Your task to perform on an android device: check out phone information Image 0: 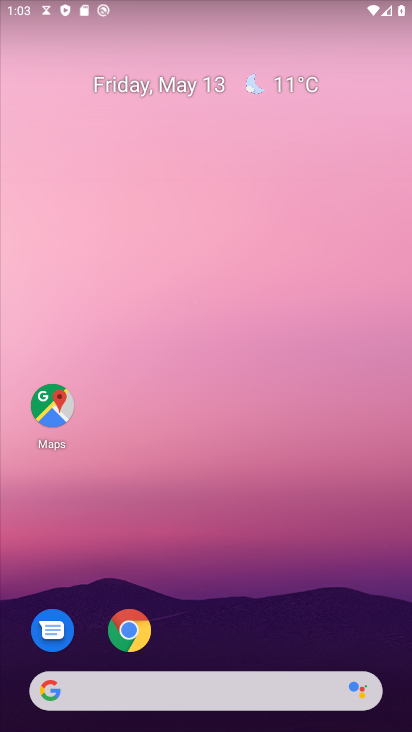
Step 0: drag from (209, 683) to (135, 32)
Your task to perform on an android device: check out phone information Image 1: 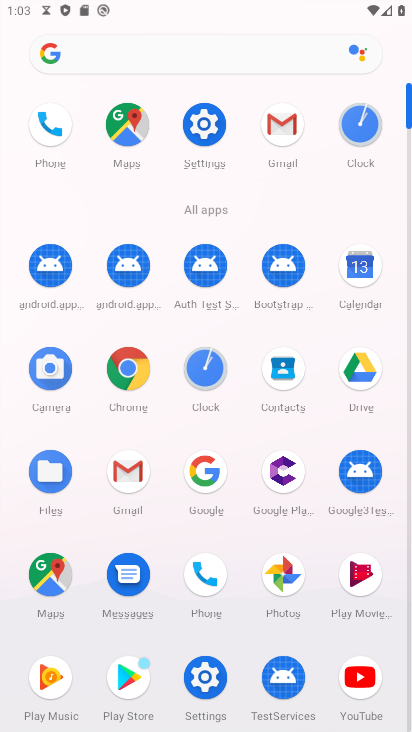
Step 1: click (195, 131)
Your task to perform on an android device: check out phone information Image 2: 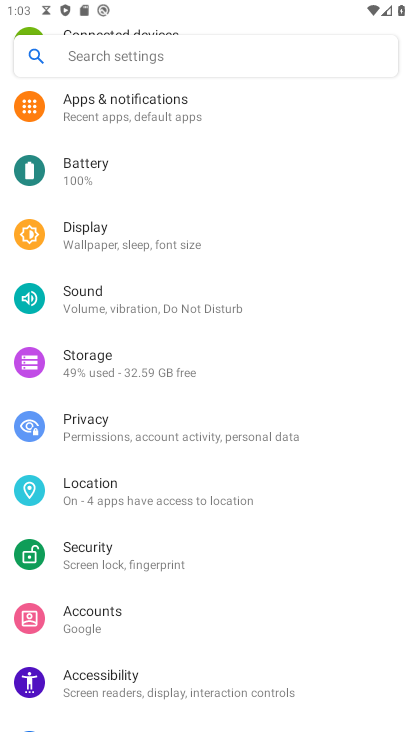
Step 2: drag from (137, 594) to (147, 45)
Your task to perform on an android device: check out phone information Image 3: 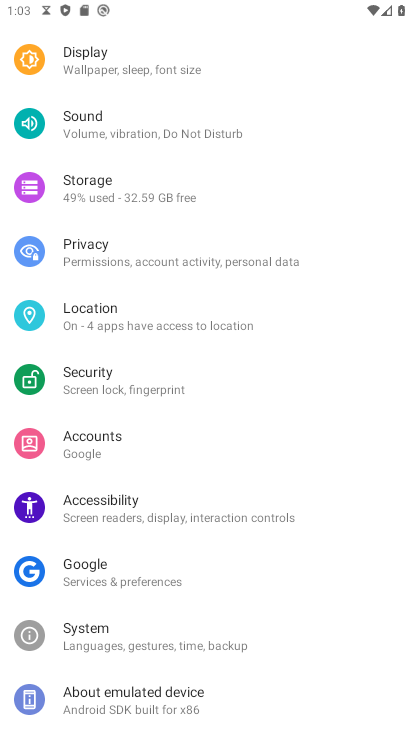
Step 3: click (151, 711)
Your task to perform on an android device: check out phone information Image 4: 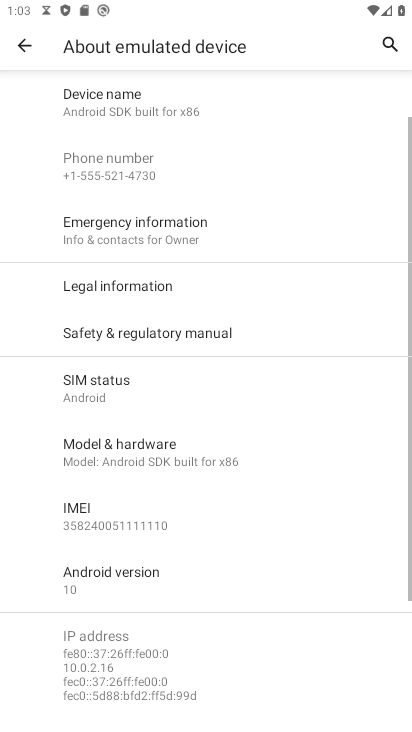
Step 4: drag from (233, 657) to (200, 42)
Your task to perform on an android device: check out phone information Image 5: 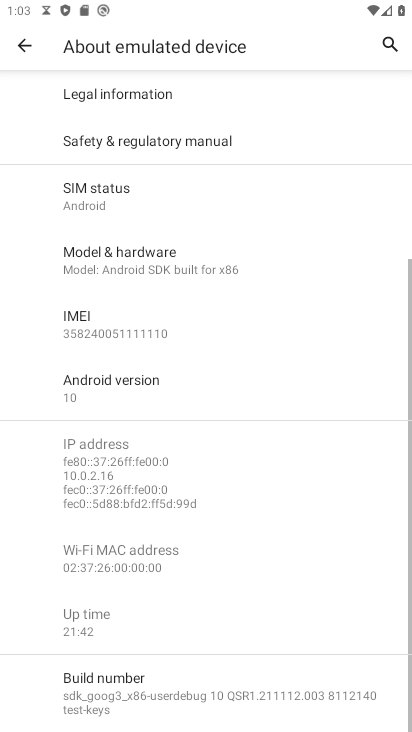
Step 5: click (200, 42)
Your task to perform on an android device: check out phone information Image 6: 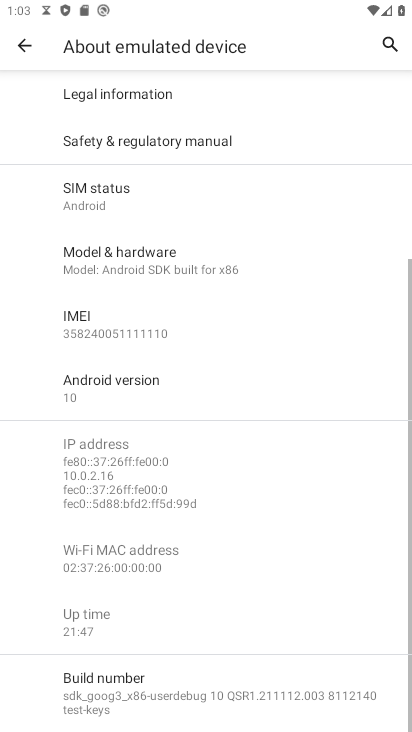
Step 6: task complete